Your task to perform on an android device: empty trash in google photos Image 0: 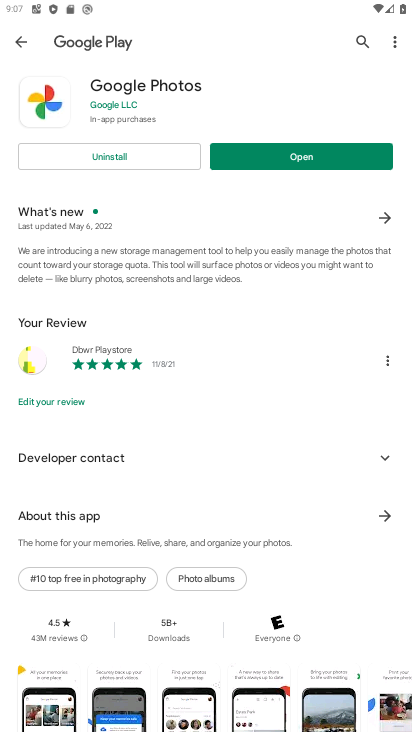
Step 0: press home button
Your task to perform on an android device: empty trash in google photos Image 1: 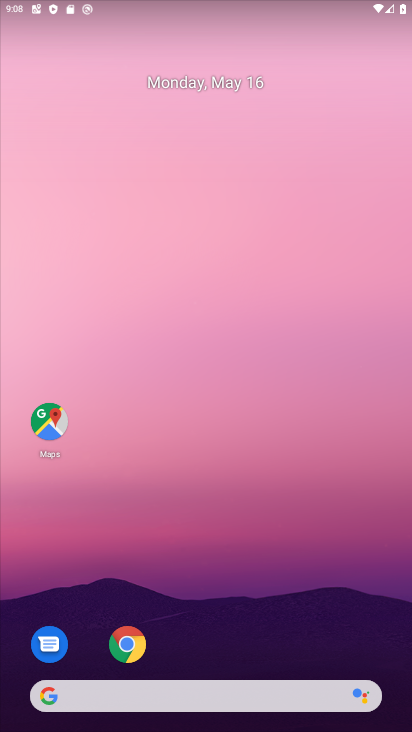
Step 1: drag from (215, 723) to (182, 65)
Your task to perform on an android device: empty trash in google photos Image 2: 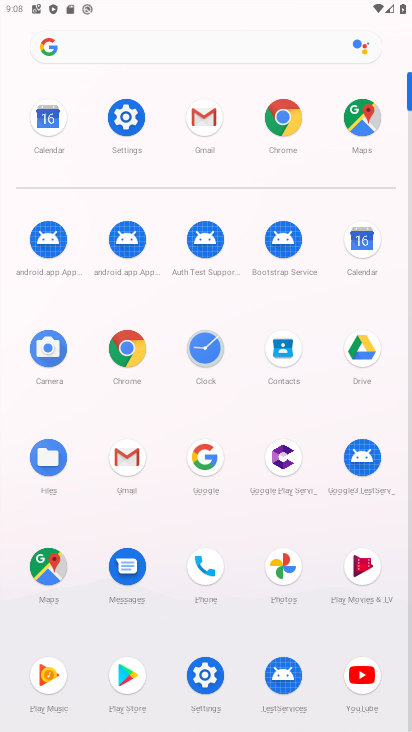
Step 2: click (290, 569)
Your task to perform on an android device: empty trash in google photos Image 3: 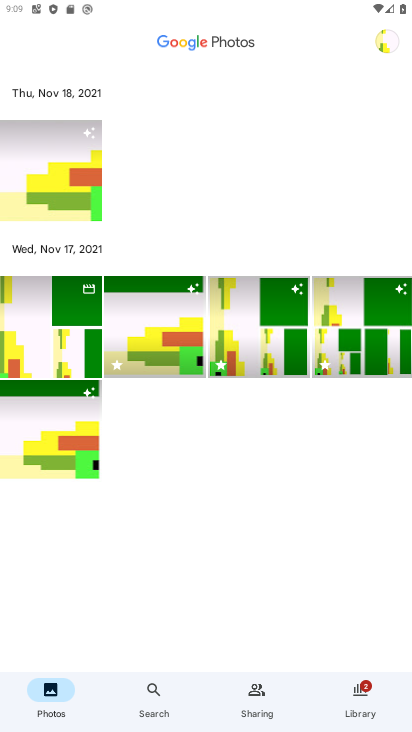
Step 3: click (387, 46)
Your task to perform on an android device: empty trash in google photos Image 4: 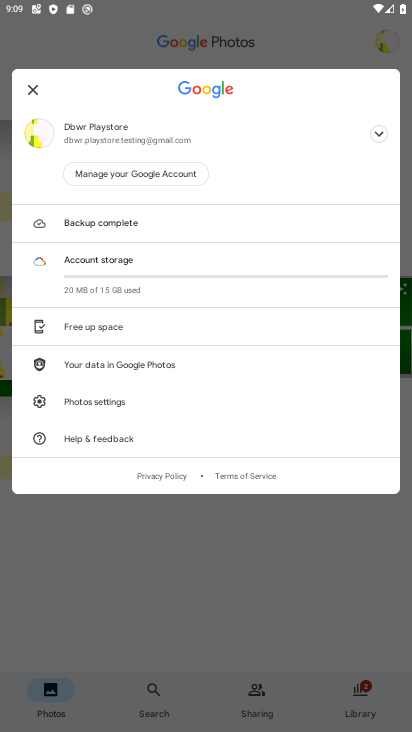
Step 4: click (138, 399)
Your task to perform on an android device: empty trash in google photos Image 5: 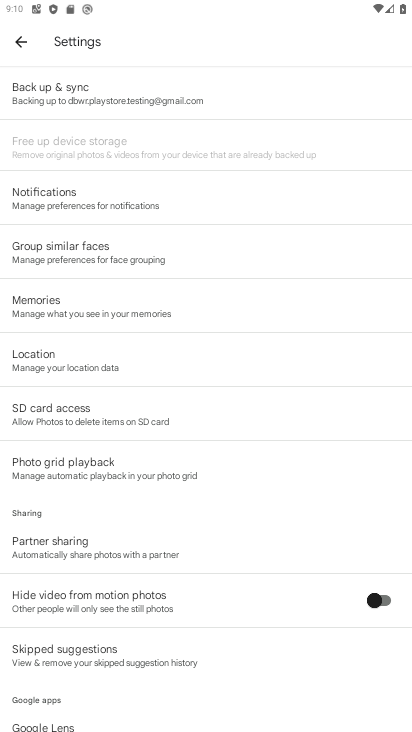
Step 5: press home button
Your task to perform on an android device: empty trash in google photos Image 6: 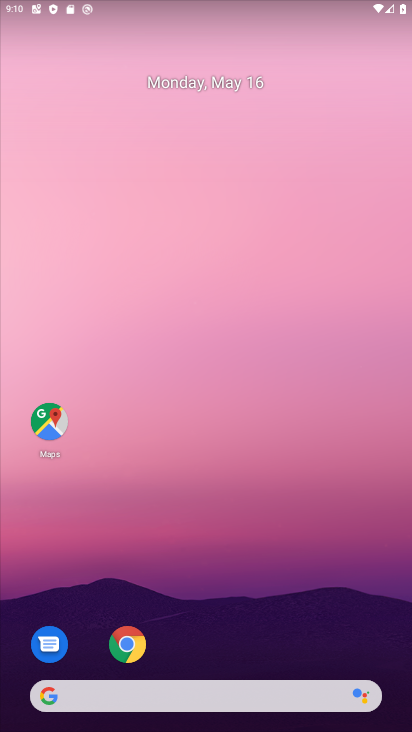
Step 6: drag from (210, 730) to (119, 46)
Your task to perform on an android device: empty trash in google photos Image 7: 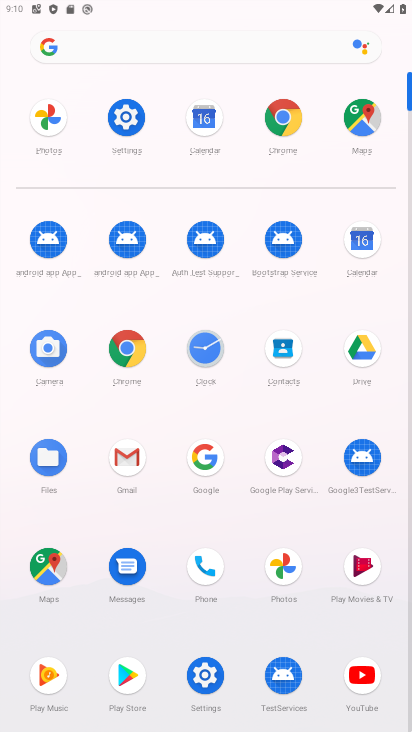
Step 7: click (282, 561)
Your task to perform on an android device: empty trash in google photos Image 8: 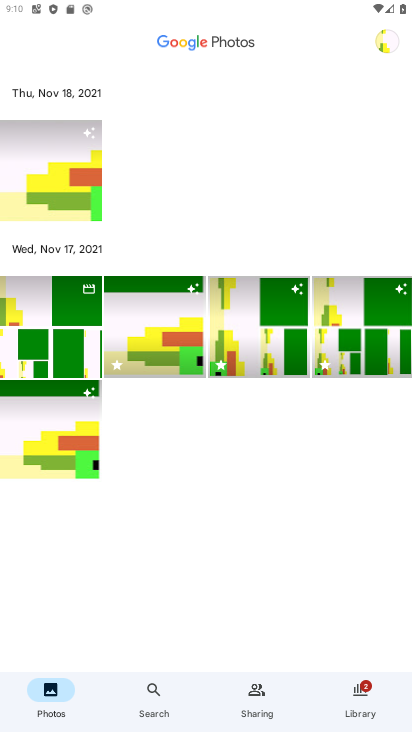
Step 8: click (373, 708)
Your task to perform on an android device: empty trash in google photos Image 9: 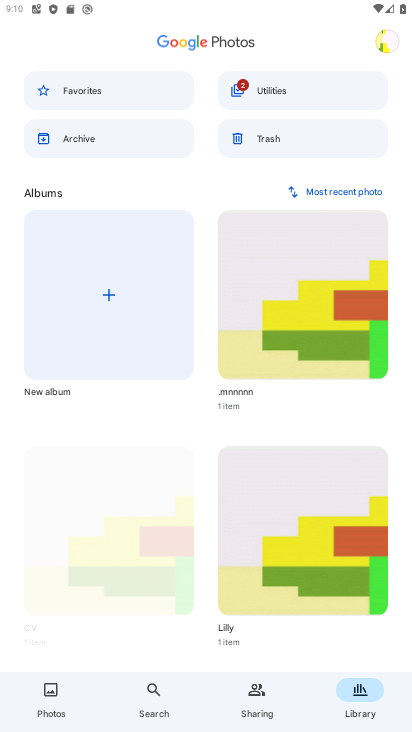
Step 9: click (286, 142)
Your task to perform on an android device: empty trash in google photos Image 10: 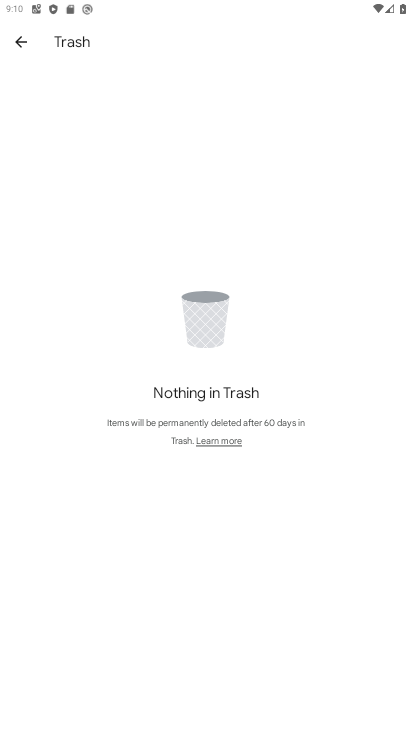
Step 10: task complete